Your task to perform on an android device: turn on sleep mode Image 0: 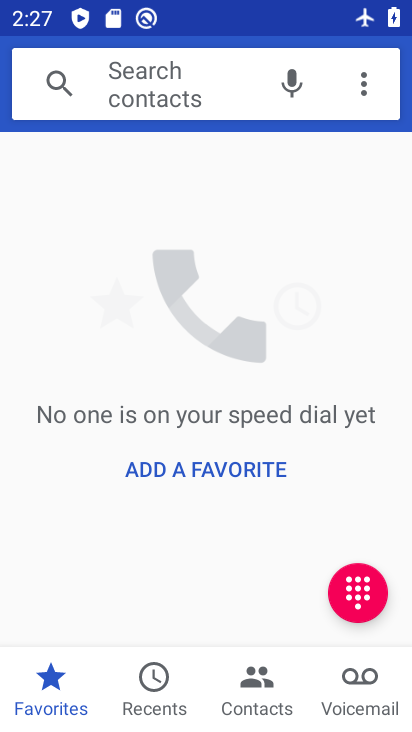
Step 0: press home button
Your task to perform on an android device: turn on sleep mode Image 1: 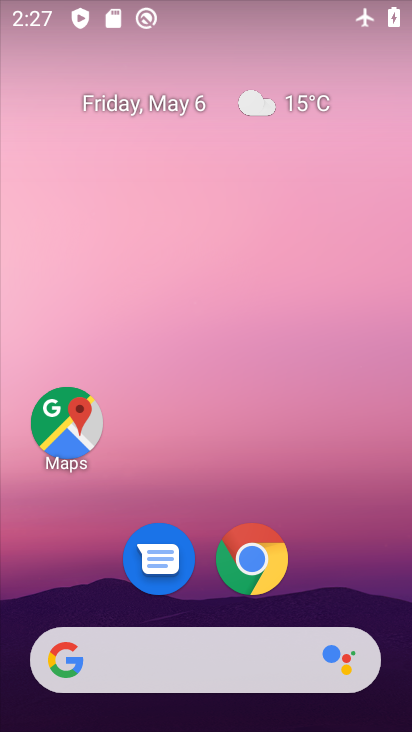
Step 1: drag from (323, 587) to (274, 78)
Your task to perform on an android device: turn on sleep mode Image 2: 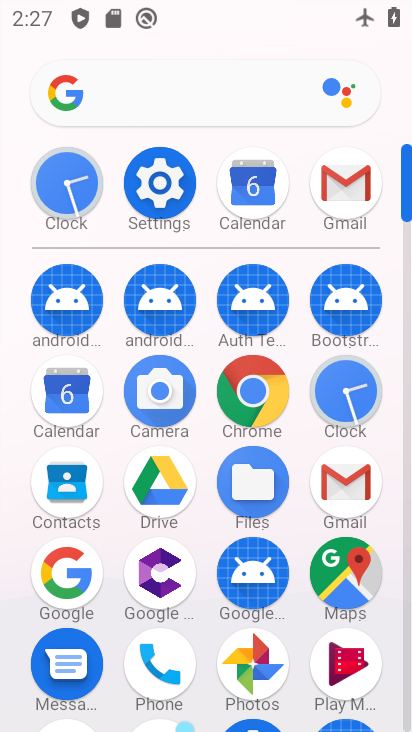
Step 2: click (177, 199)
Your task to perform on an android device: turn on sleep mode Image 3: 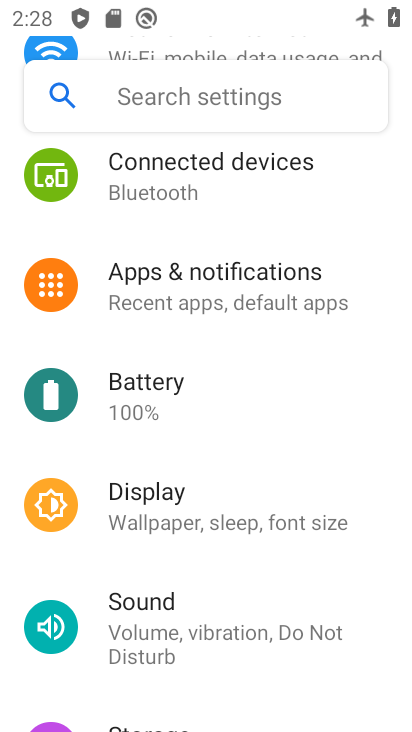
Step 3: drag from (223, 246) to (282, 650)
Your task to perform on an android device: turn on sleep mode Image 4: 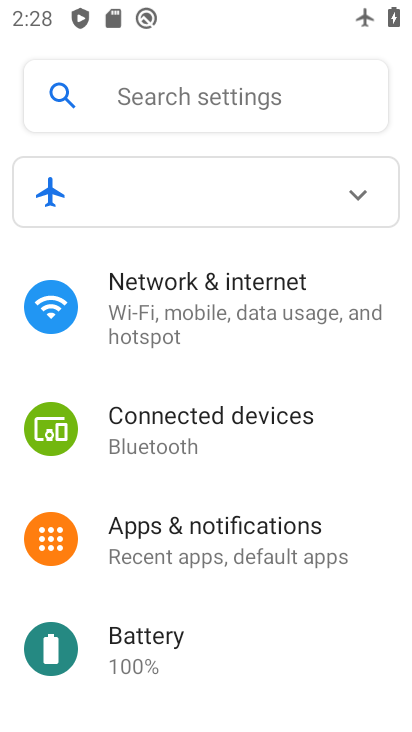
Step 4: drag from (240, 581) to (242, 410)
Your task to perform on an android device: turn on sleep mode Image 5: 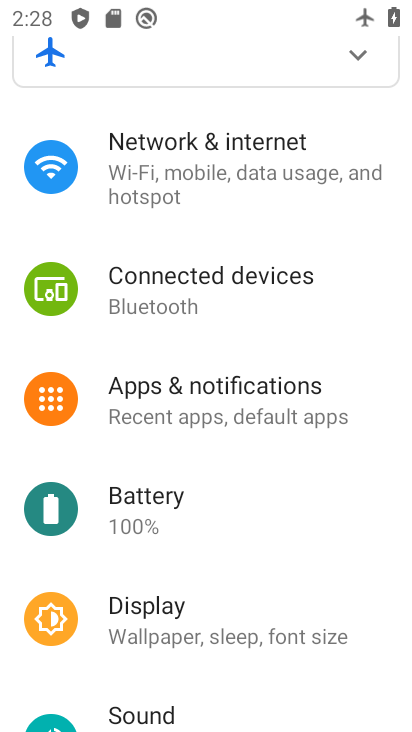
Step 5: click (221, 612)
Your task to perform on an android device: turn on sleep mode Image 6: 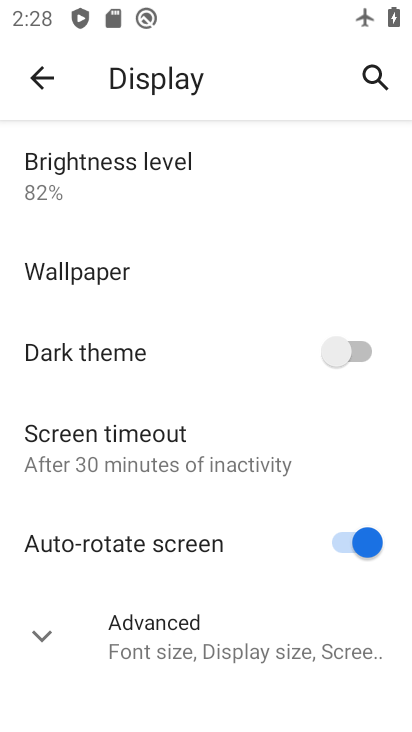
Step 6: click (191, 652)
Your task to perform on an android device: turn on sleep mode Image 7: 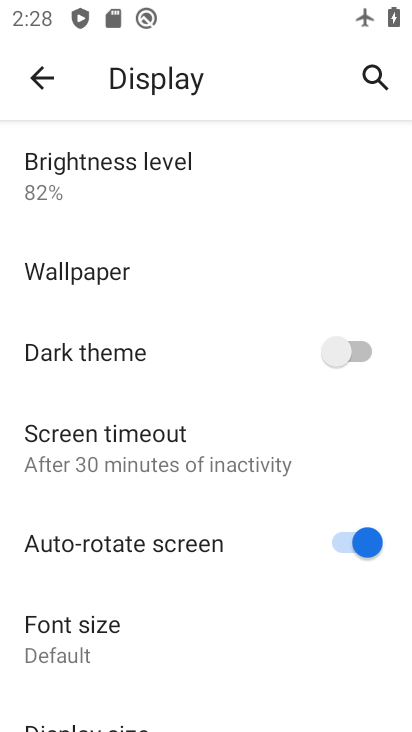
Step 7: click (186, 451)
Your task to perform on an android device: turn on sleep mode Image 8: 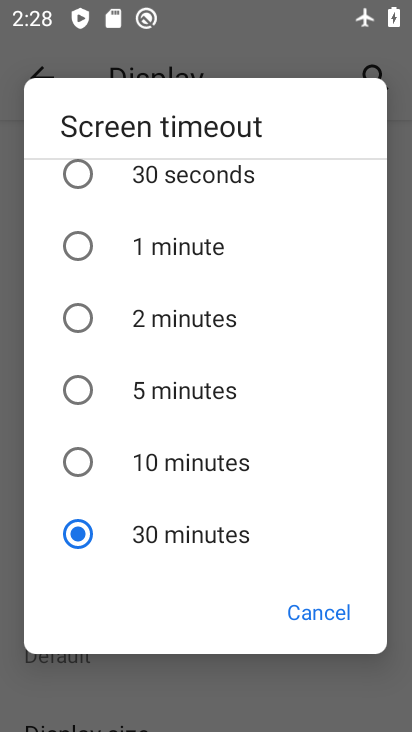
Step 8: click (192, 183)
Your task to perform on an android device: turn on sleep mode Image 9: 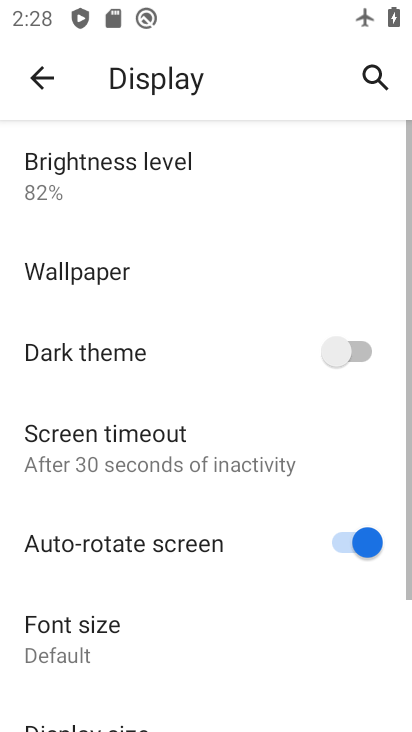
Step 9: task complete